Your task to perform on an android device: toggle sleep mode Image 0: 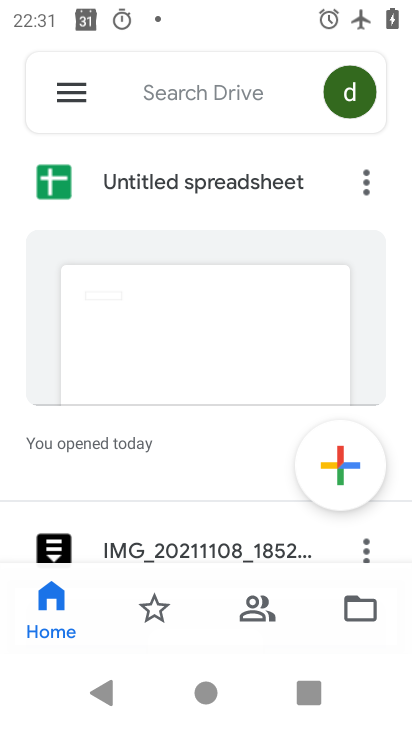
Step 0: press home button
Your task to perform on an android device: toggle sleep mode Image 1: 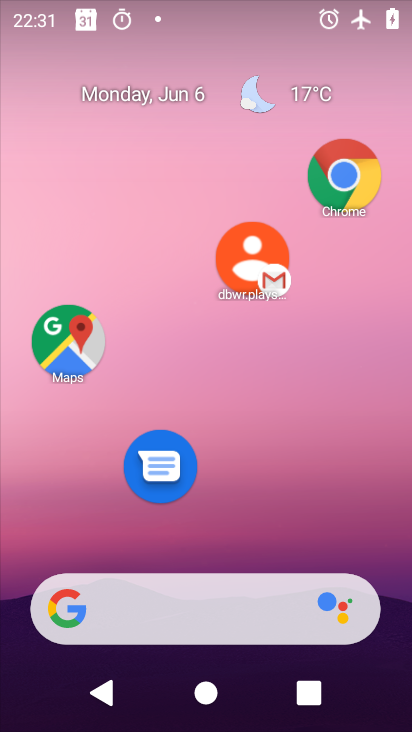
Step 1: drag from (194, 545) to (168, 9)
Your task to perform on an android device: toggle sleep mode Image 2: 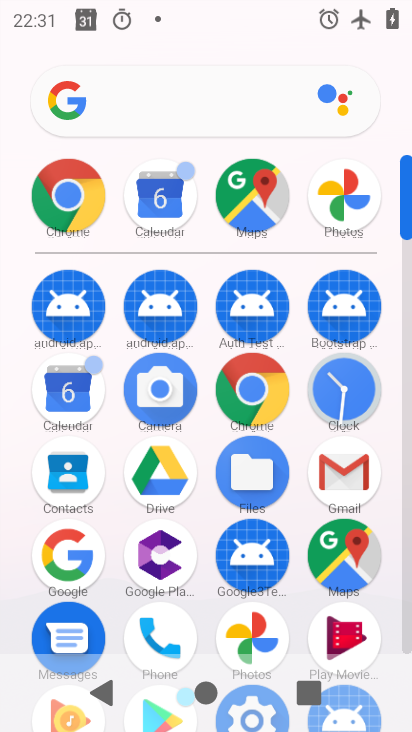
Step 2: drag from (198, 640) to (221, 118)
Your task to perform on an android device: toggle sleep mode Image 3: 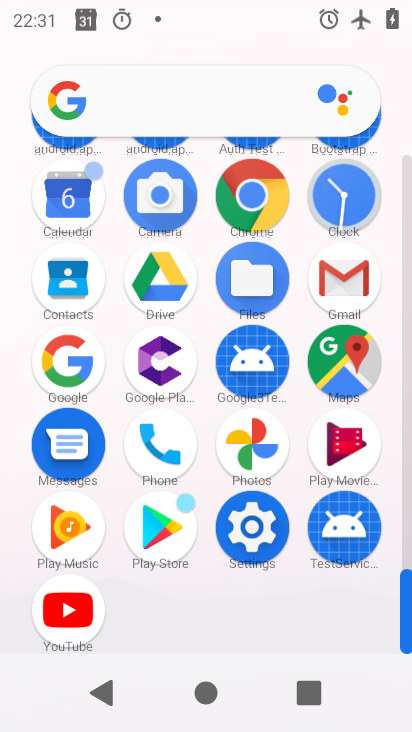
Step 3: click (249, 539)
Your task to perform on an android device: toggle sleep mode Image 4: 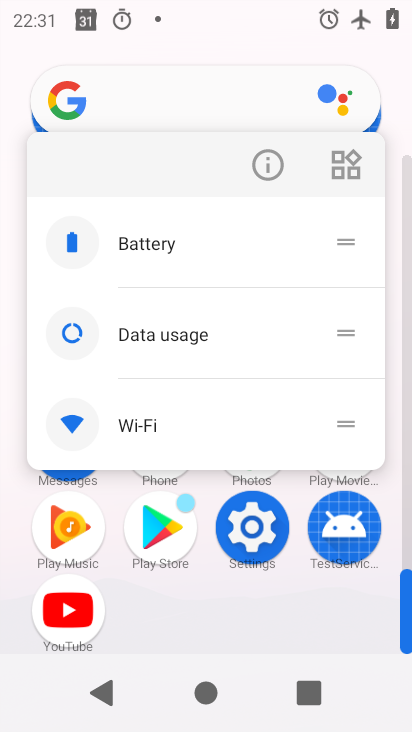
Step 4: click (264, 162)
Your task to perform on an android device: toggle sleep mode Image 5: 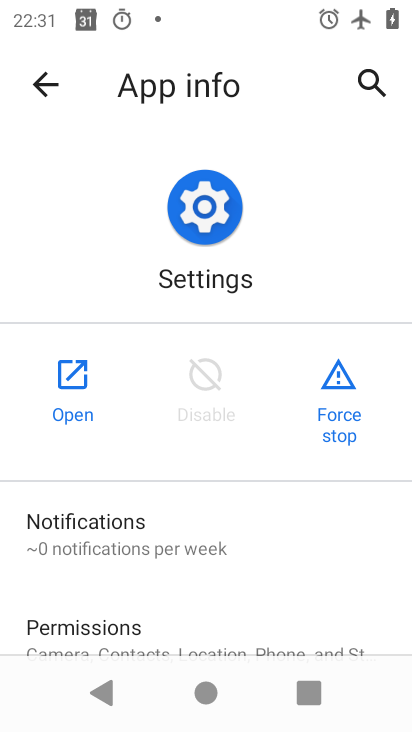
Step 5: click (67, 390)
Your task to perform on an android device: toggle sleep mode Image 6: 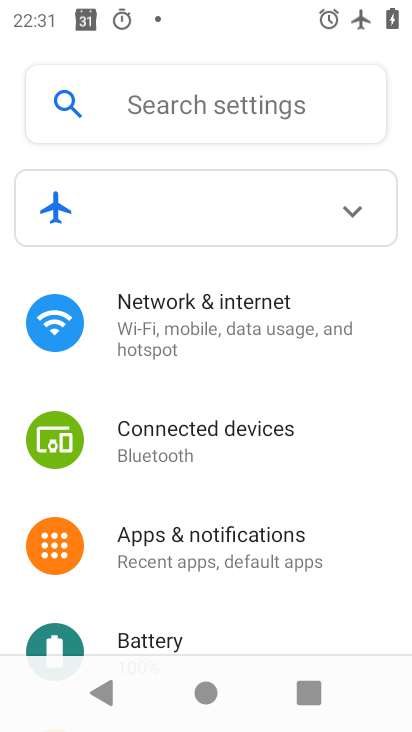
Step 6: drag from (232, 584) to (261, 220)
Your task to perform on an android device: toggle sleep mode Image 7: 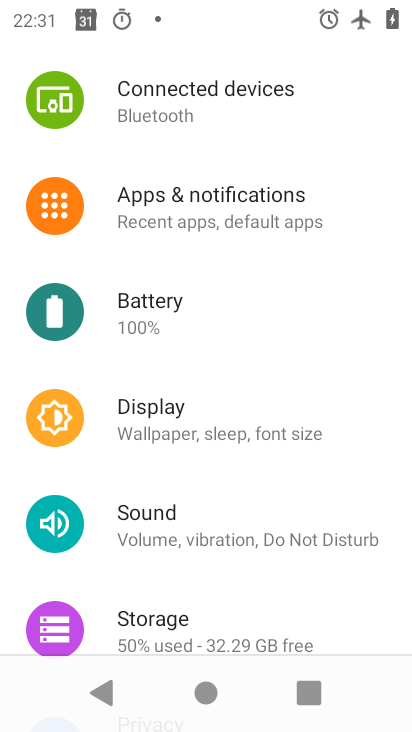
Step 7: click (193, 388)
Your task to perform on an android device: toggle sleep mode Image 8: 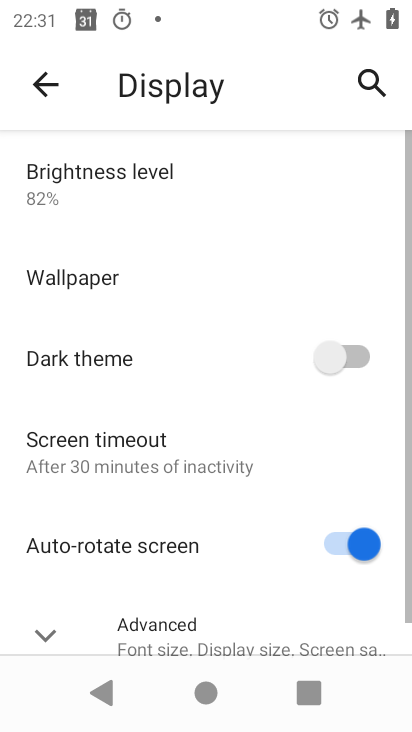
Step 8: drag from (232, 548) to (288, 121)
Your task to perform on an android device: toggle sleep mode Image 9: 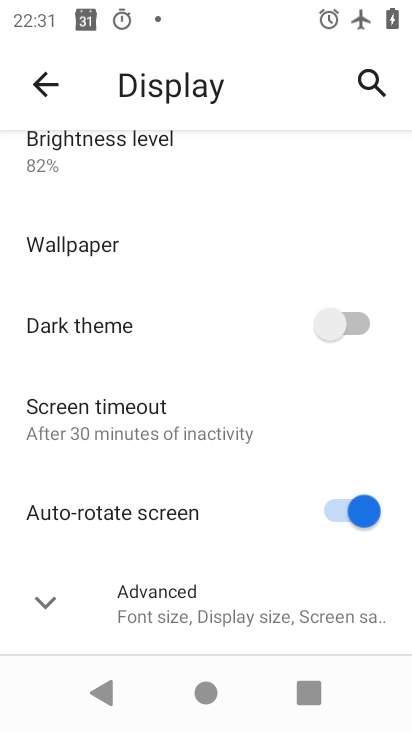
Step 9: click (195, 421)
Your task to perform on an android device: toggle sleep mode Image 10: 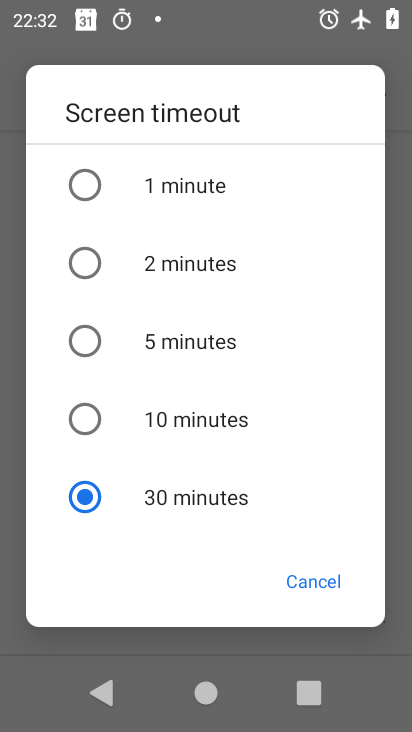
Step 10: task complete